Your task to perform on an android device: Open the calendar app, open the side menu, and click the "Day" option Image 0: 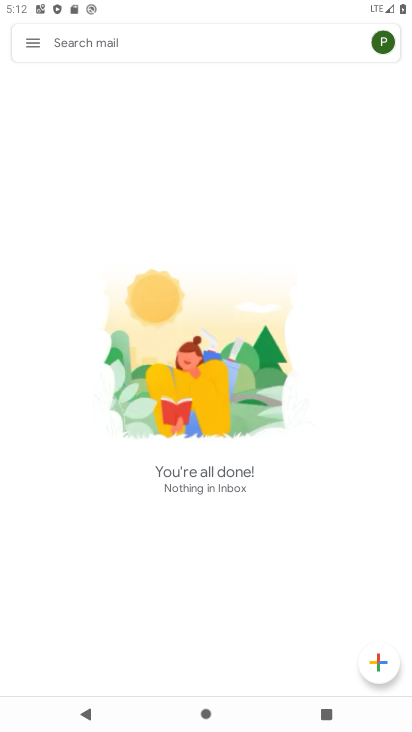
Step 0: press home button
Your task to perform on an android device: Open the calendar app, open the side menu, and click the "Day" option Image 1: 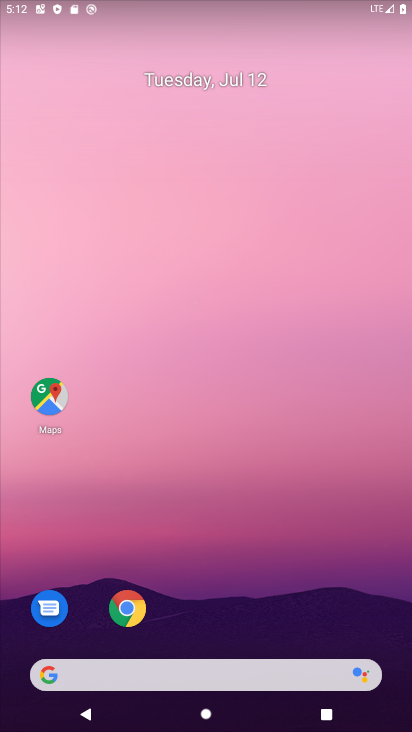
Step 1: click (176, 75)
Your task to perform on an android device: Open the calendar app, open the side menu, and click the "Day" option Image 2: 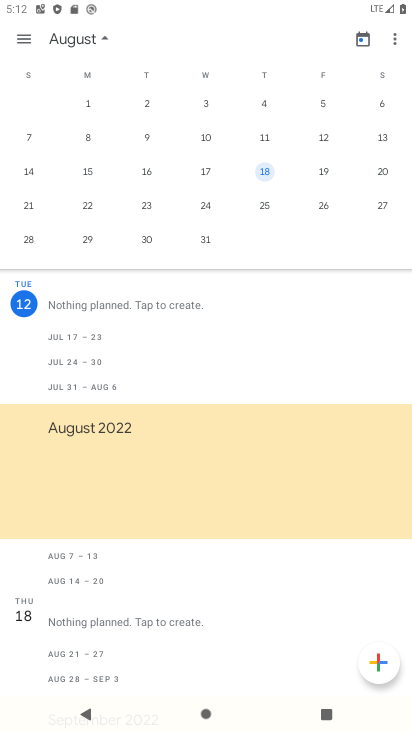
Step 2: click (27, 35)
Your task to perform on an android device: Open the calendar app, open the side menu, and click the "Day" option Image 3: 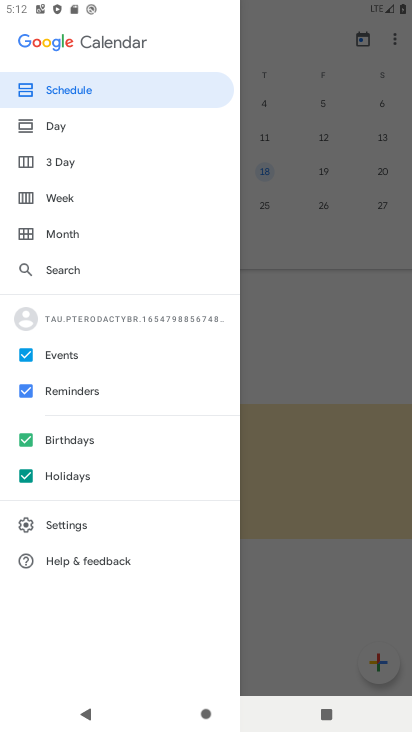
Step 3: click (107, 124)
Your task to perform on an android device: Open the calendar app, open the side menu, and click the "Day" option Image 4: 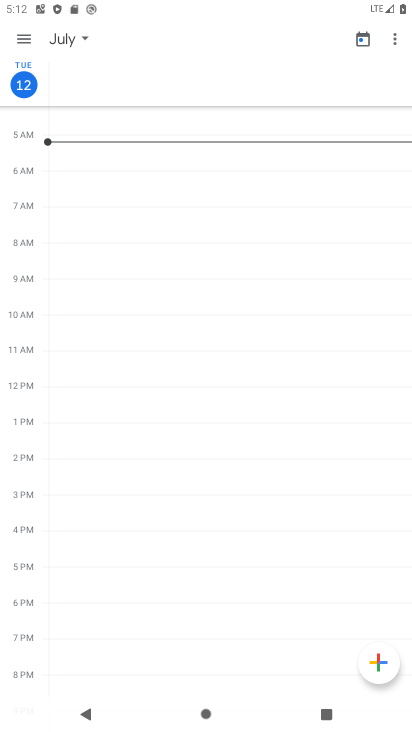
Step 4: task complete